Your task to perform on an android device: Go to Yahoo.com Image 0: 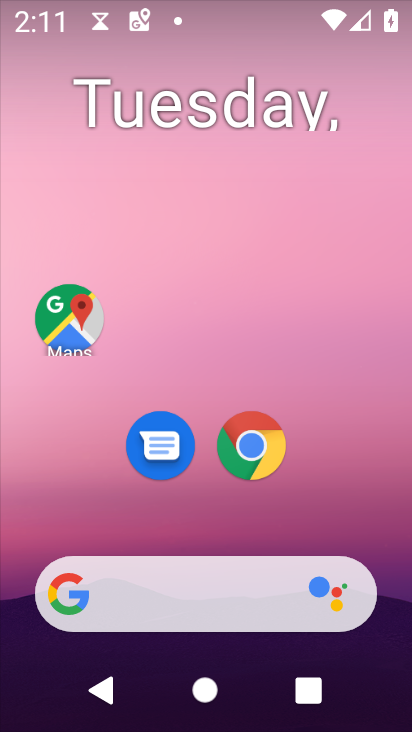
Step 0: drag from (300, 578) to (332, 68)
Your task to perform on an android device: Go to Yahoo.com Image 1: 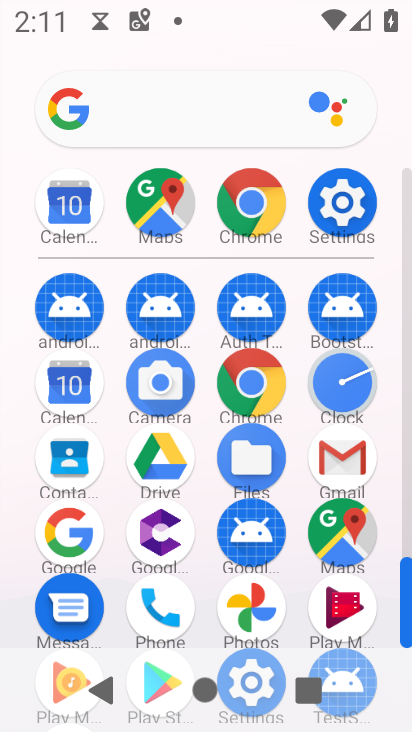
Step 1: click (267, 408)
Your task to perform on an android device: Go to Yahoo.com Image 2: 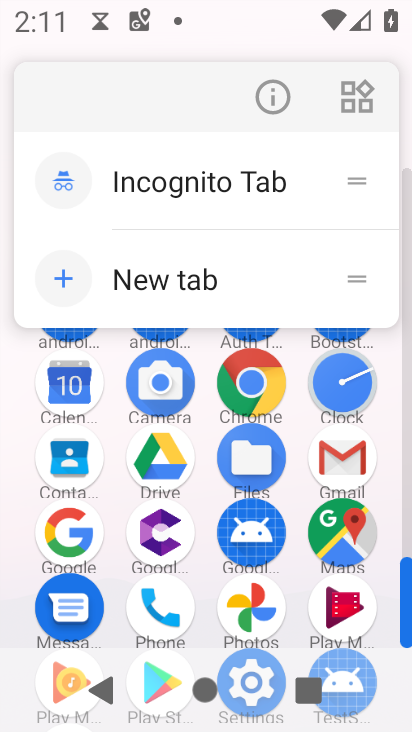
Step 2: click (268, 388)
Your task to perform on an android device: Go to Yahoo.com Image 3: 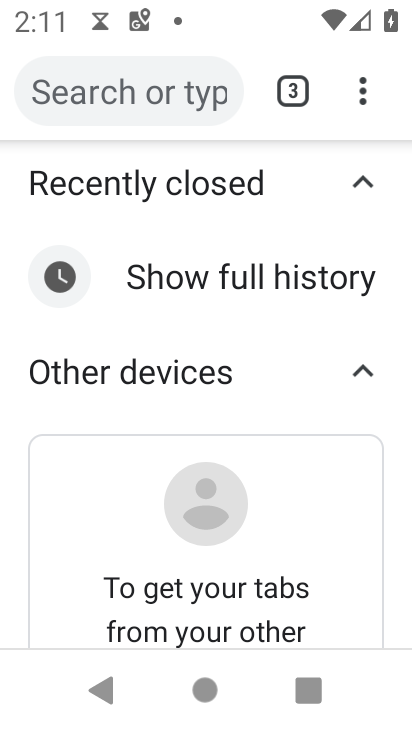
Step 3: click (187, 104)
Your task to perform on an android device: Go to Yahoo.com Image 4: 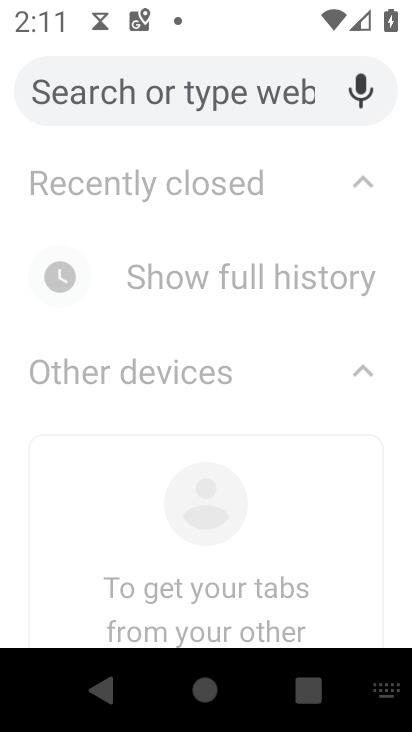
Step 4: type "yahoo.com"
Your task to perform on an android device: Go to Yahoo.com Image 5: 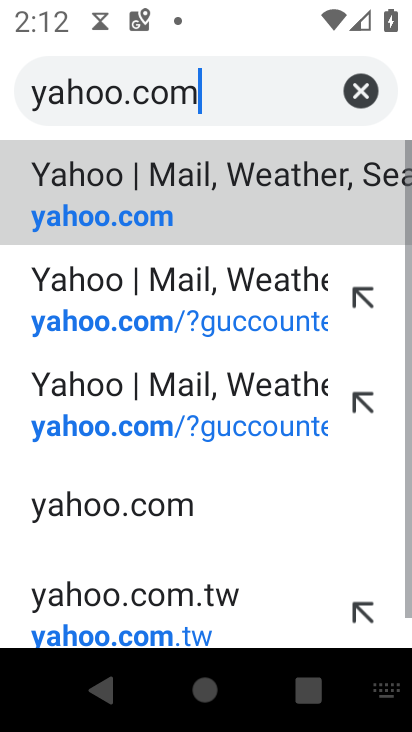
Step 5: click (214, 218)
Your task to perform on an android device: Go to Yahoo.com Image 6: 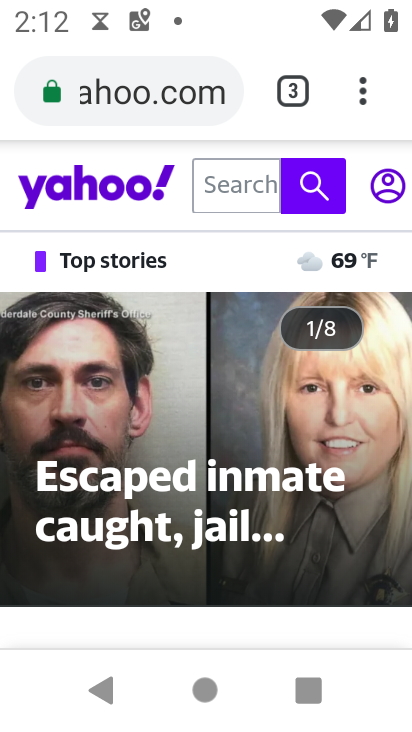
Step 6: task complete